Your task to perform on an android device: Look up the best rated Nike shoes on Nike.com Image 0: 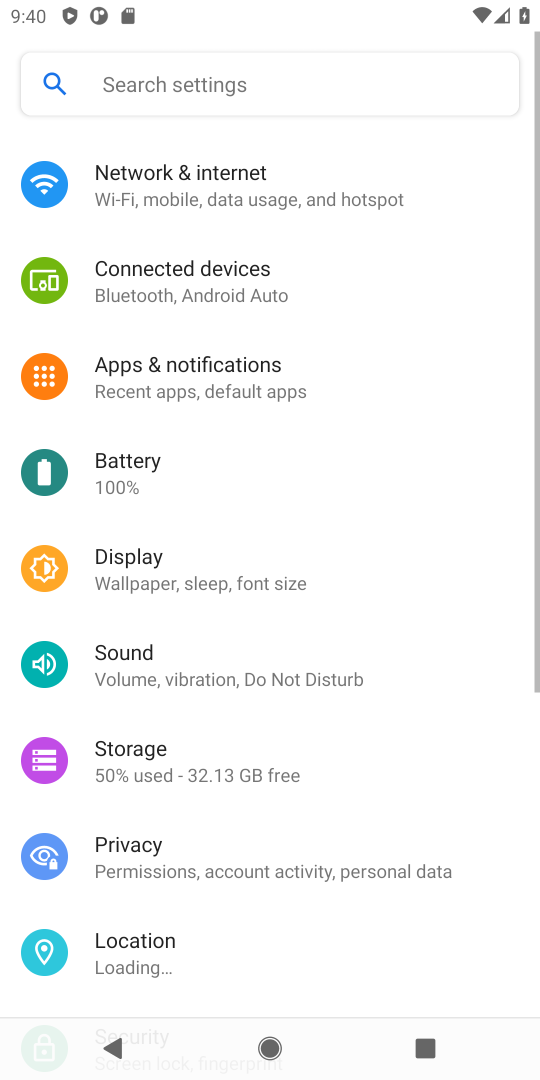
Step 0: press home button
Your task to perform on an android device: Look up the best rated Nike shoes on Nike.com Image 1: 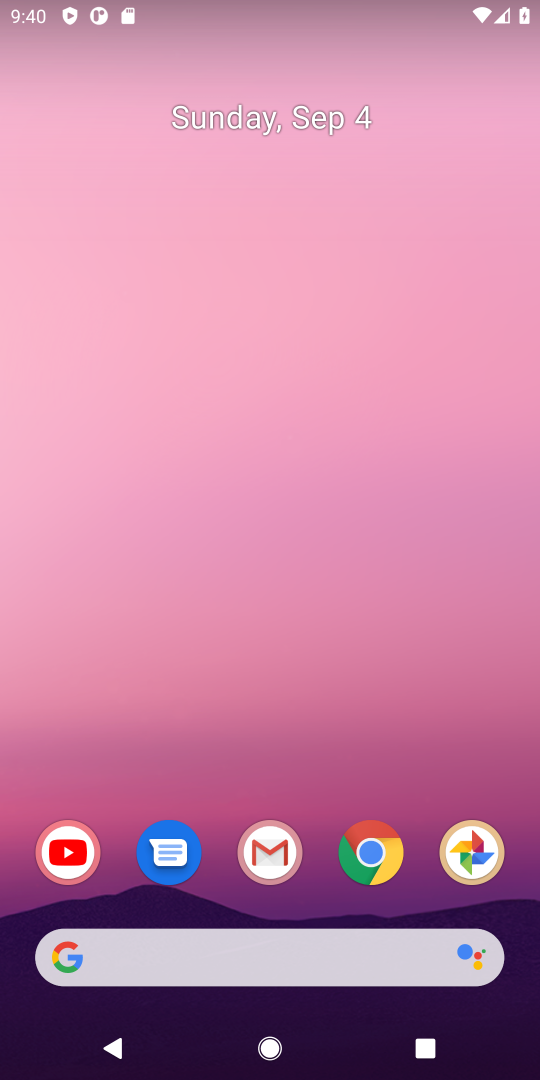
Step 1: drag from (406, 630) to (162, 33)
Your task to perform on an android device: Look up the best rated Nike shoes on Nike.com Image 2: 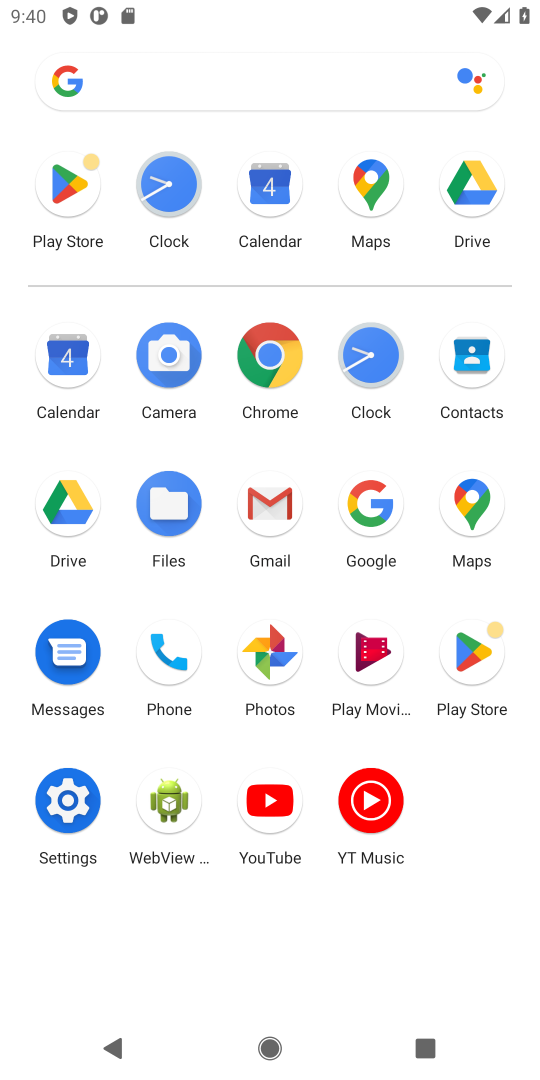
Step 2: click (363, 506)
Your task to perform on an android device: Look up the best rated Nike shoes on Nike.com Image 3: 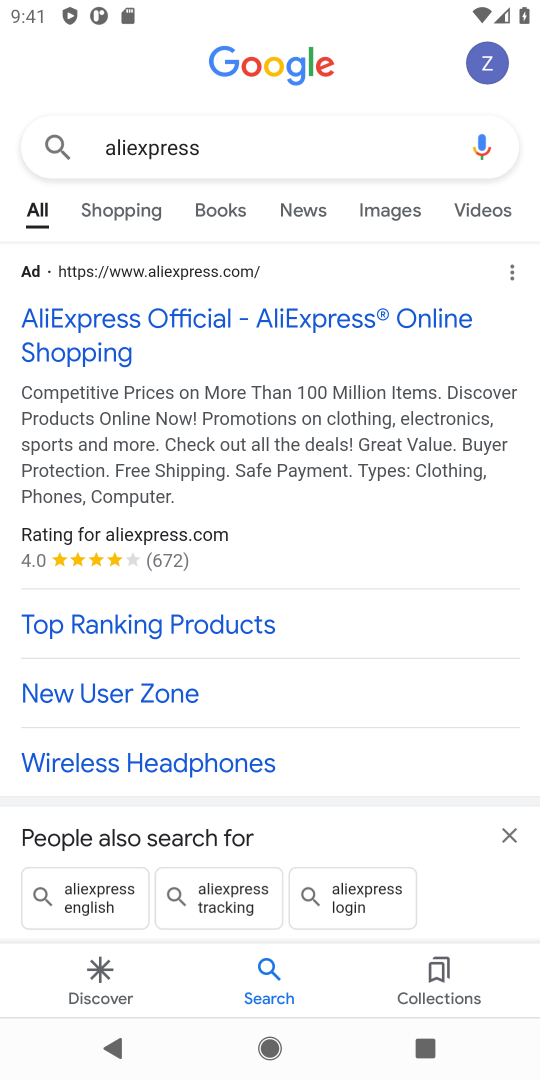
Step 3: press back button
Your task to perform on an android device: Look up the best rated Nike shoes on Nike.com Image 4: 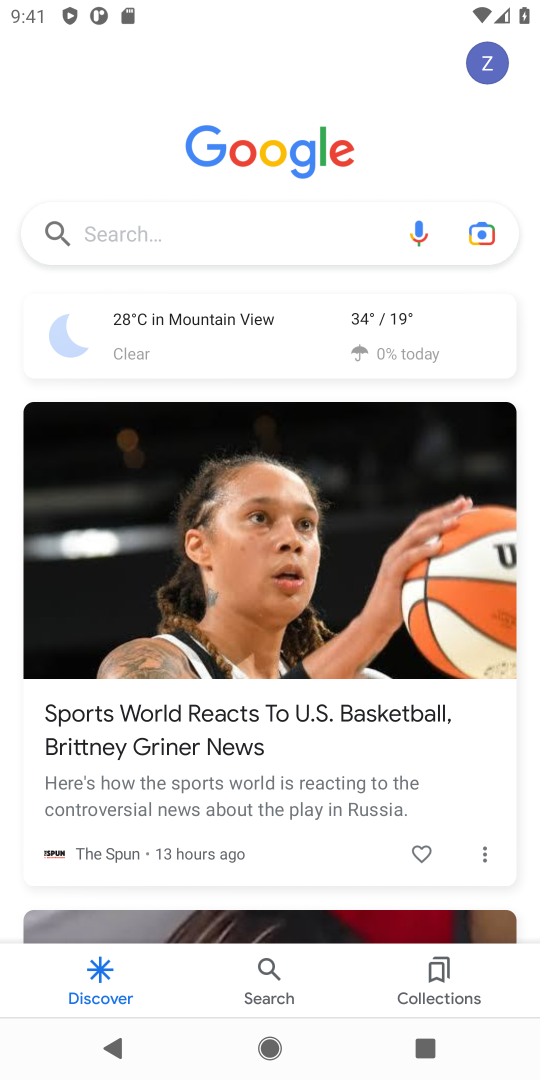
Step 4: click (278, 233)
Your task to perform on an android device: Look up the best rated Nike shoes on Nike.com Image 5: 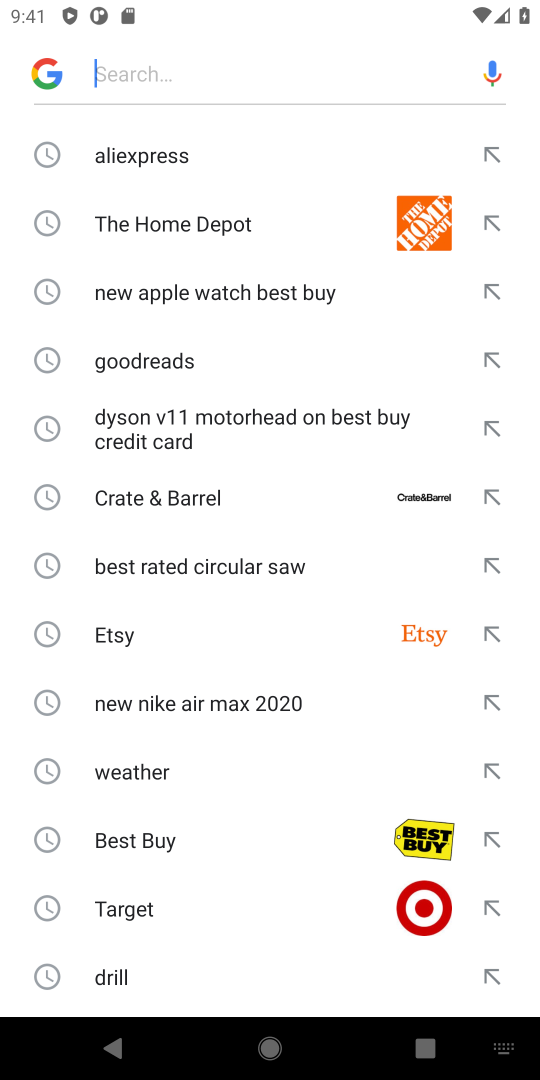
Step 5: type "Nike.com"
Your task to perform on an android device: Look up the best rated Nike shoes on Nike.com Image 6: 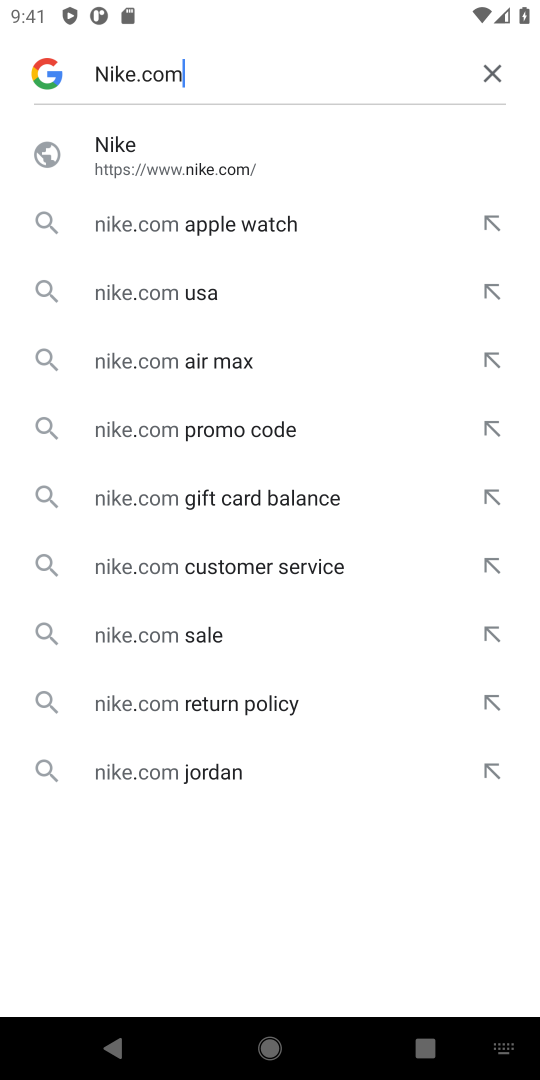
Step 6: click (177, 162)
Your task to perform on an android device: Look up the best rated Nike shoes on Nike.com Image 7: 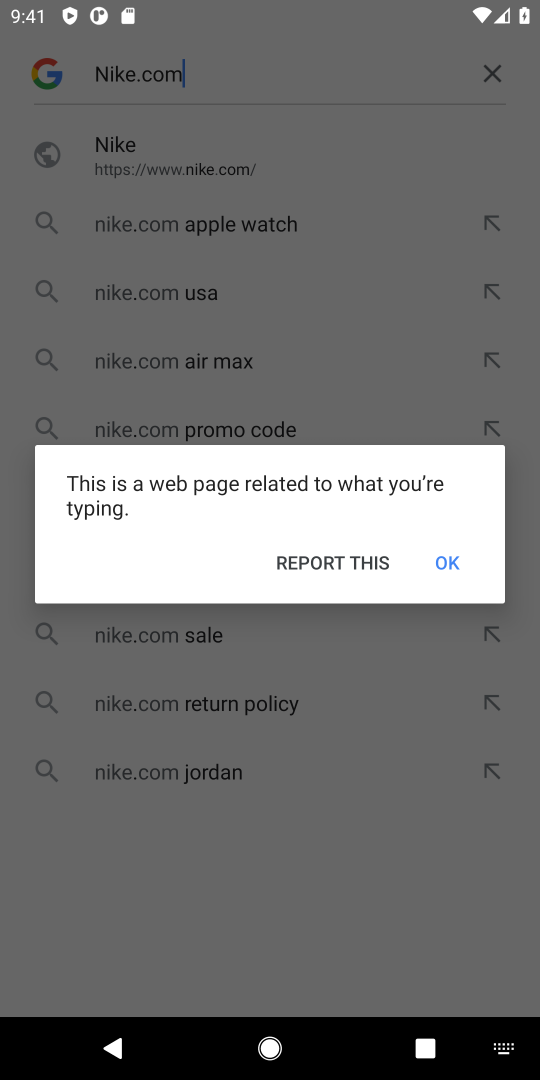
Step 7: task complete